Your task to perform on an android device: install app "Skype" Image 0: 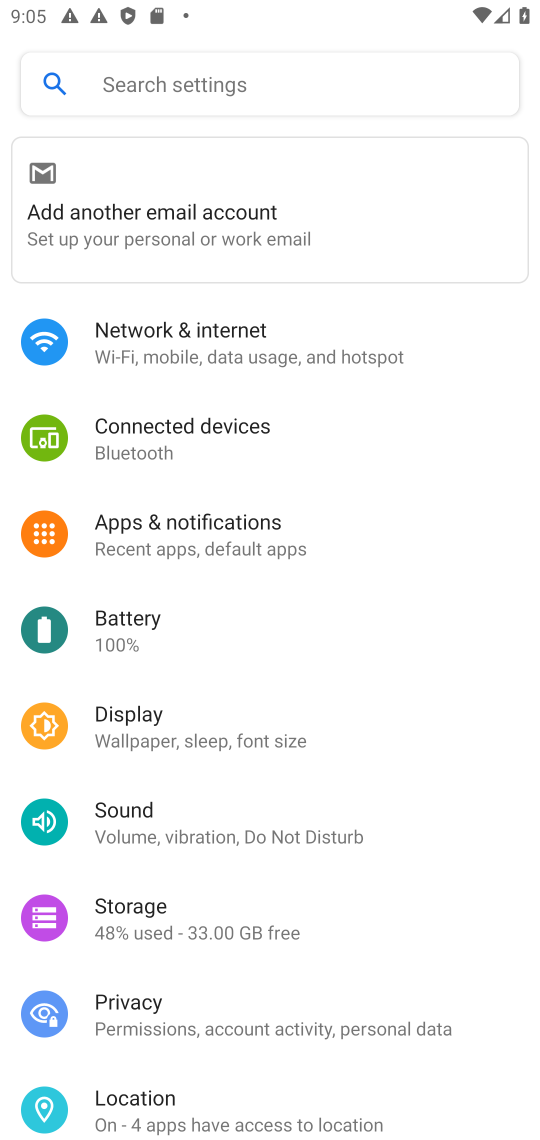
Step 0: press back button
Your task to perform on an android device: install app "Skype" Image 1: 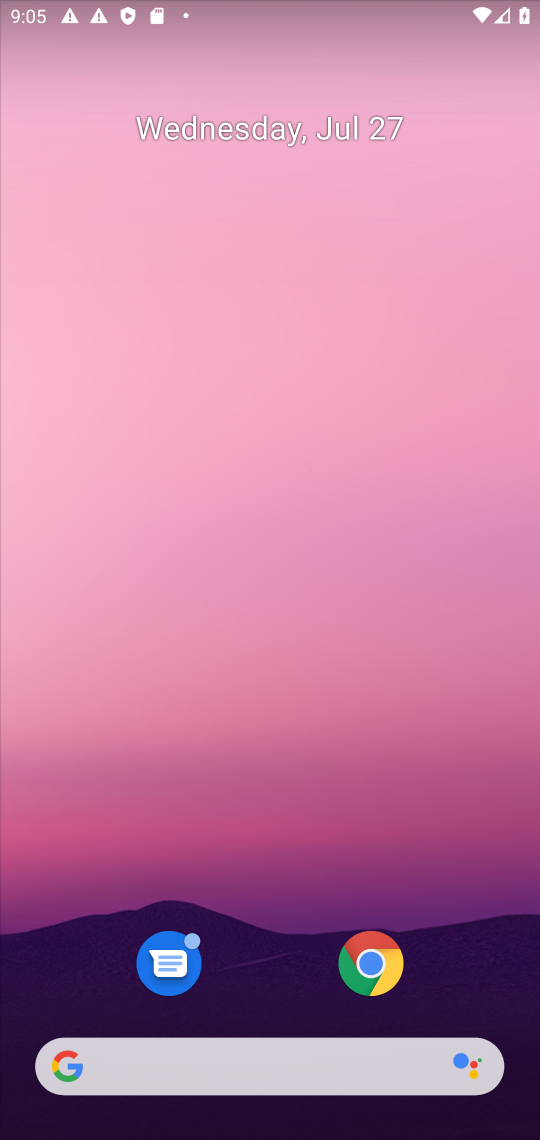
Step 1: drag from (232, 950) to (286, 129)
Your task to perform on an android device: install app "Skype" Image 2: 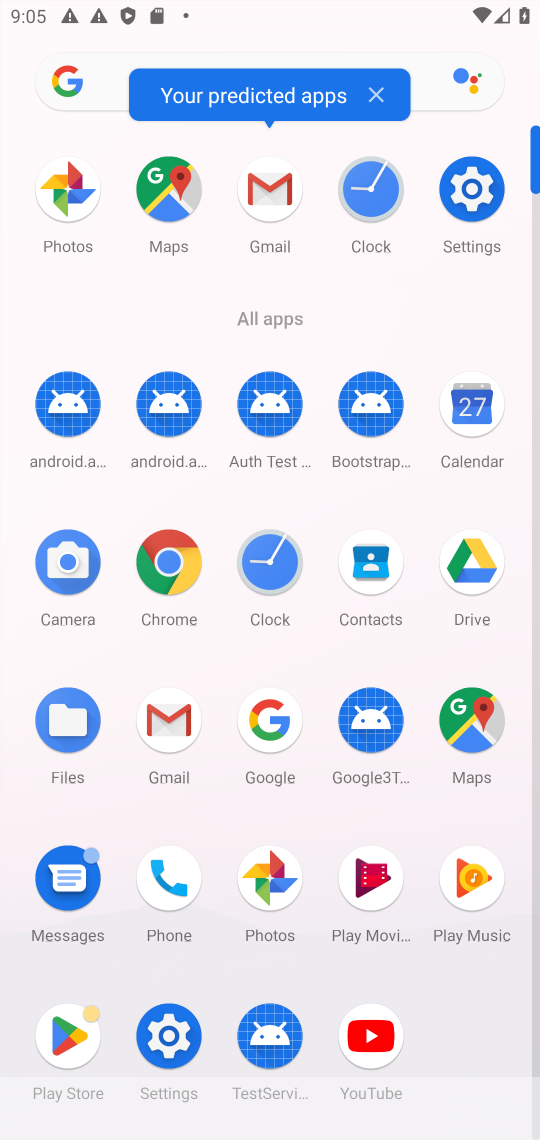
Step 2: click (79, 1030)
Your task to perform on an android device: install app "Skype" Image 3: 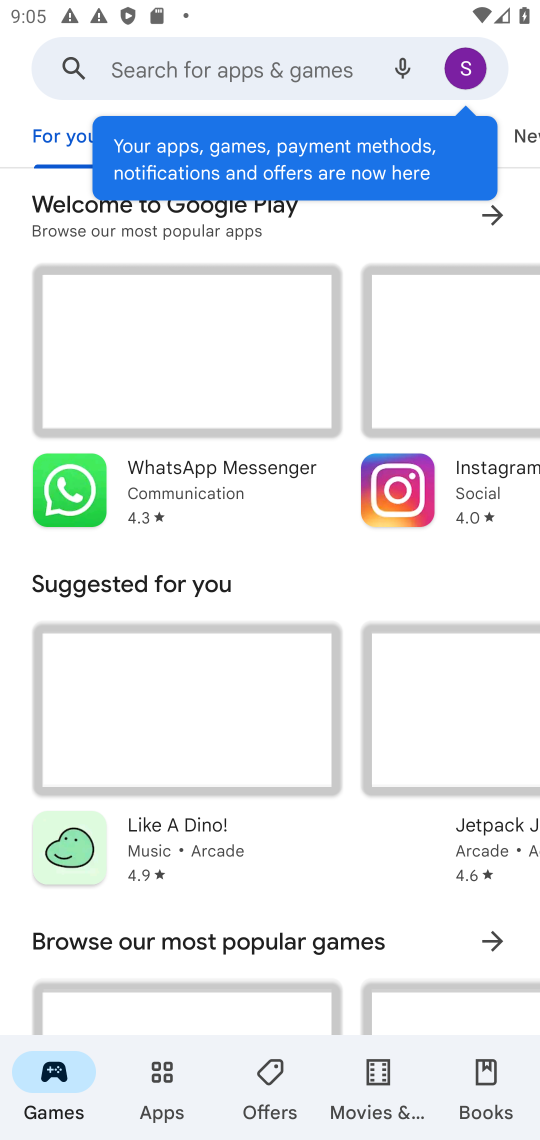
Step 3: click (311, 68)
Your task to perform on an android device: install app "Skype" Image 4: 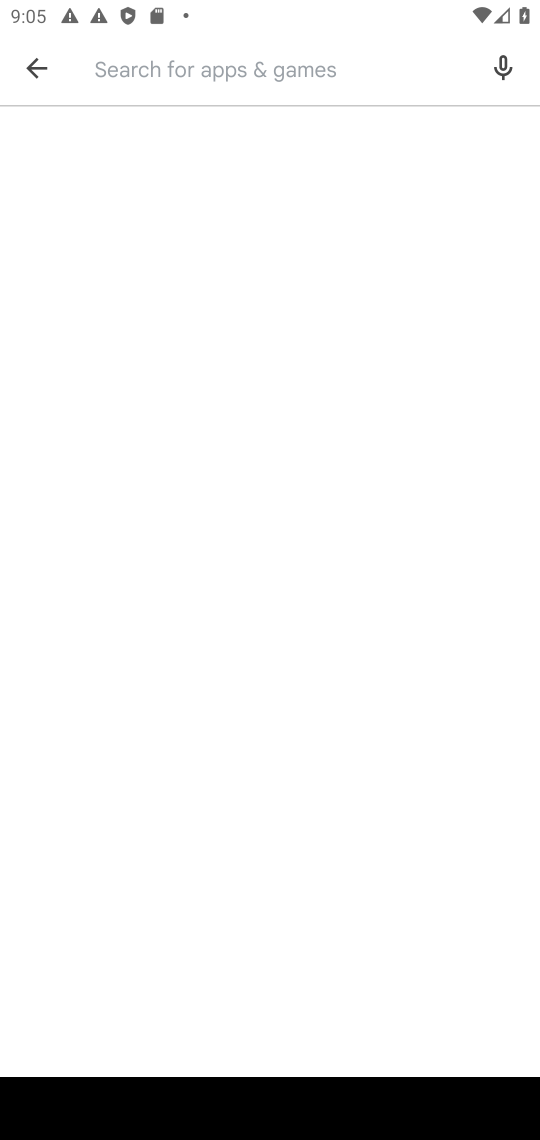
Step 4: type "skype"
Your task to perform on an android device: install app "Skype" Image 5: 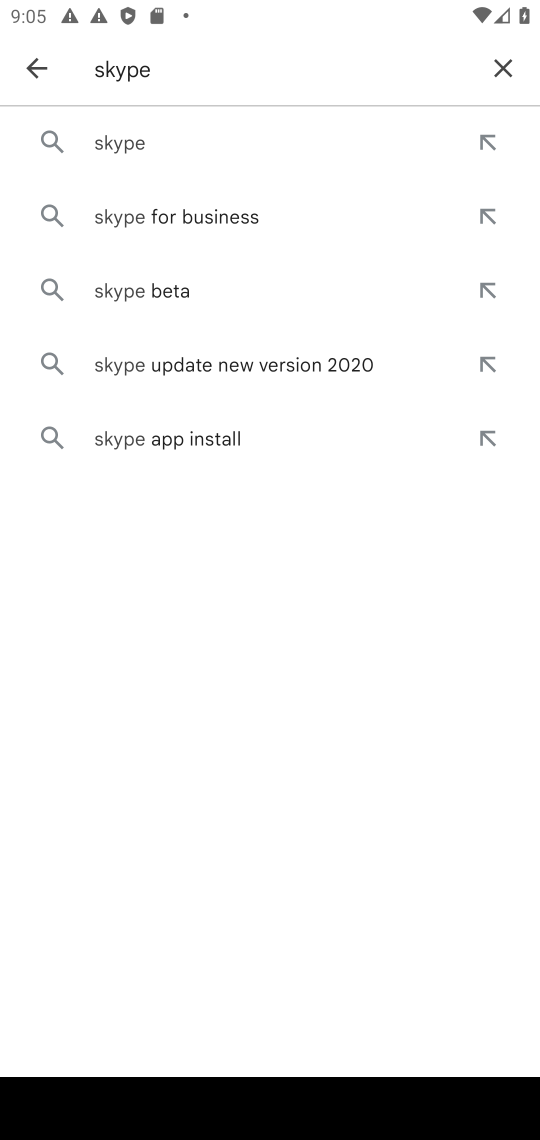
Step 5: click (199, 132)
Your task to perform on an android device: install app "Skype" Image 6: 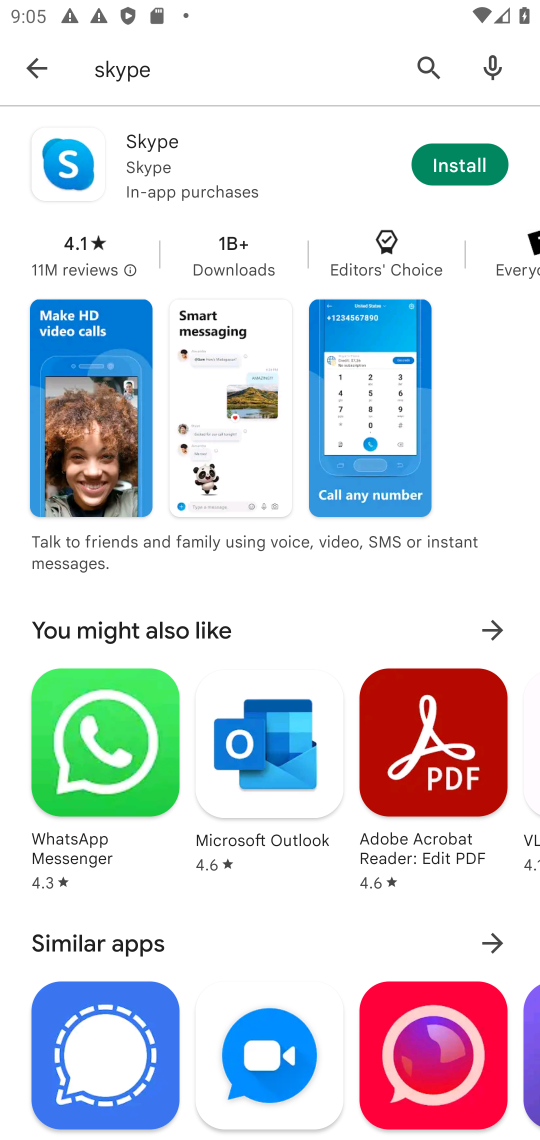
Step 6: click (414, 165)
Your task to perform on an android device: install app "Skype" Image 7: 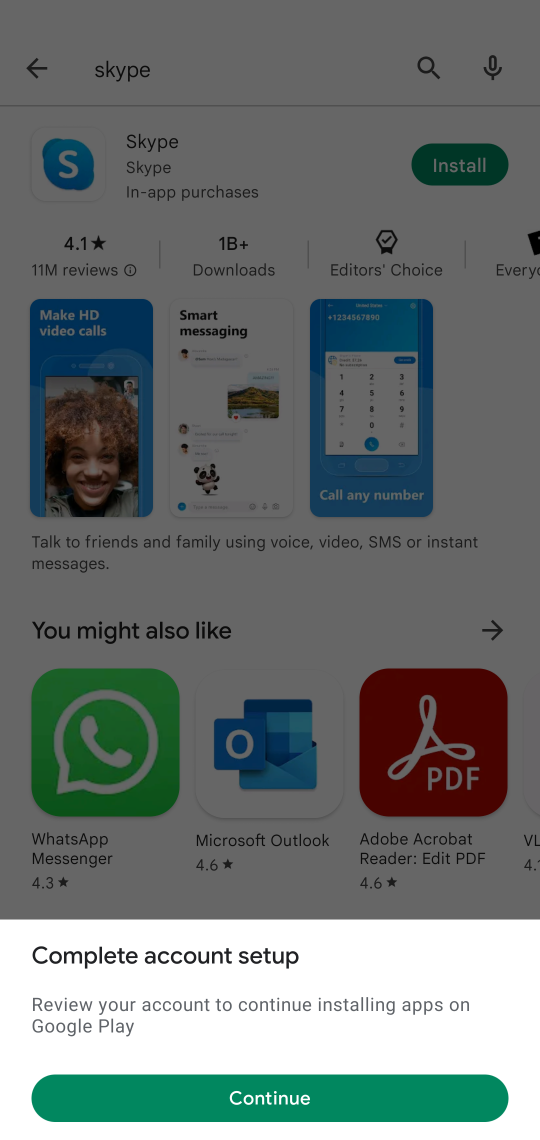
Step 7: click (251, 1083)
Your task to perform on an android device: install app "Skype" Image 8: 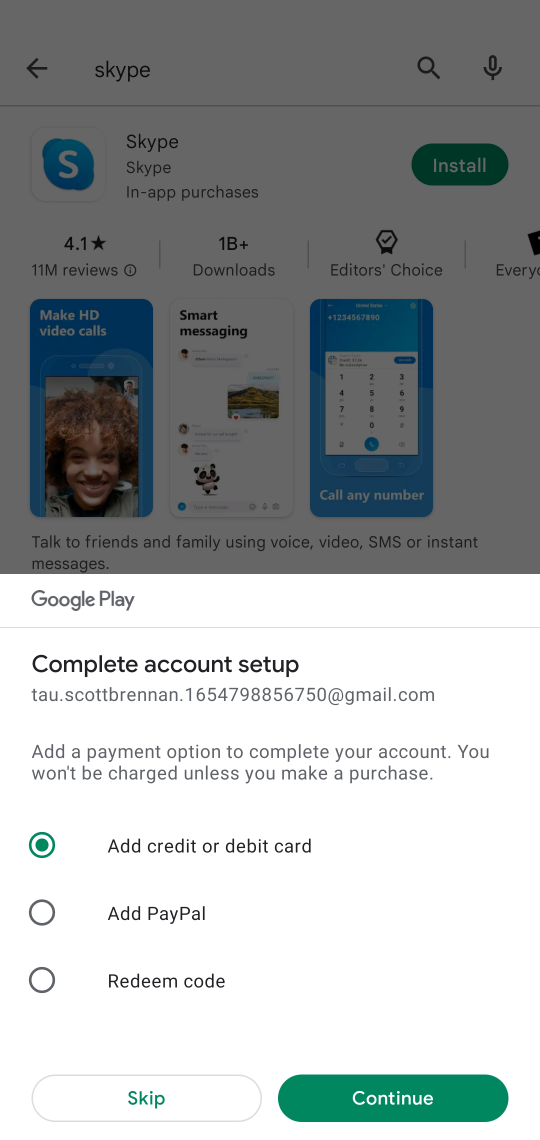
Step 8: click (193, 1096)
Your task to perform on an android device: install app "Skype" Image 9: 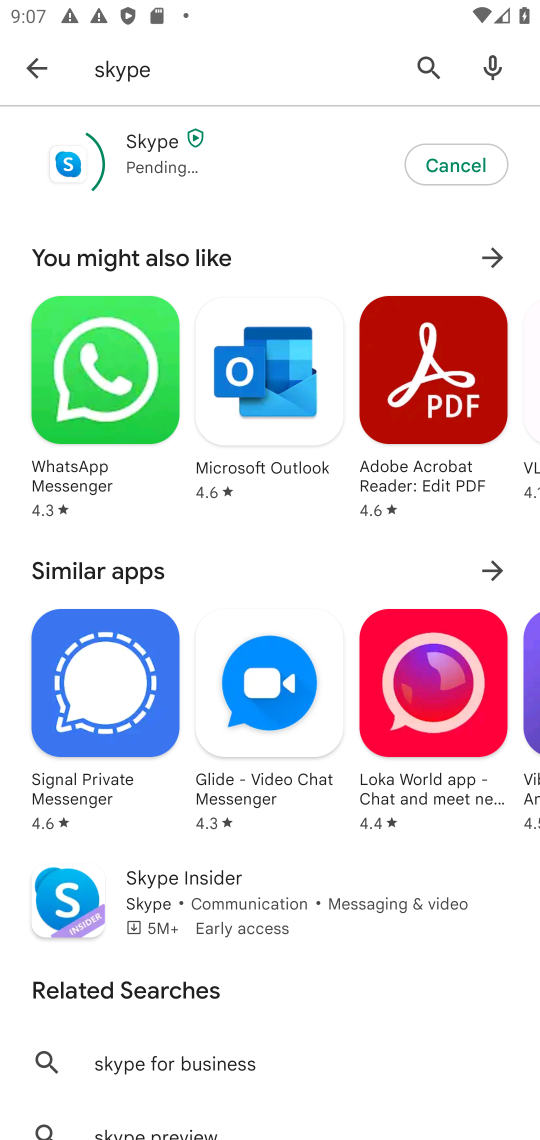
Step 9: drag from (382, 847) to (242, 1121)
Your task to perform on an android device: install app "Skype" Image 10: 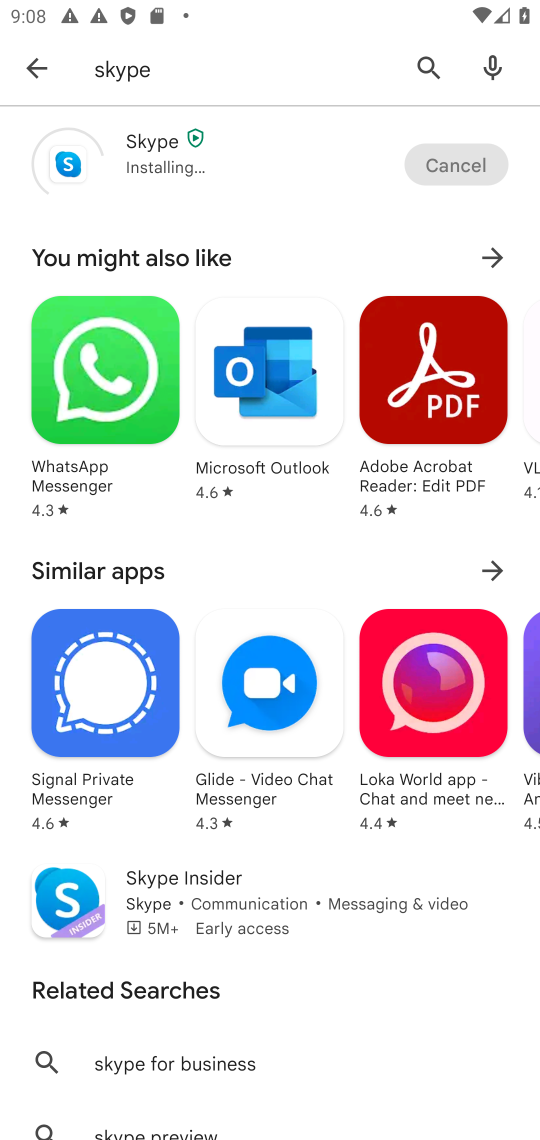
Step 10: click (482, 155)
Your task to perform on an android device: install app "Skype" Image 11: 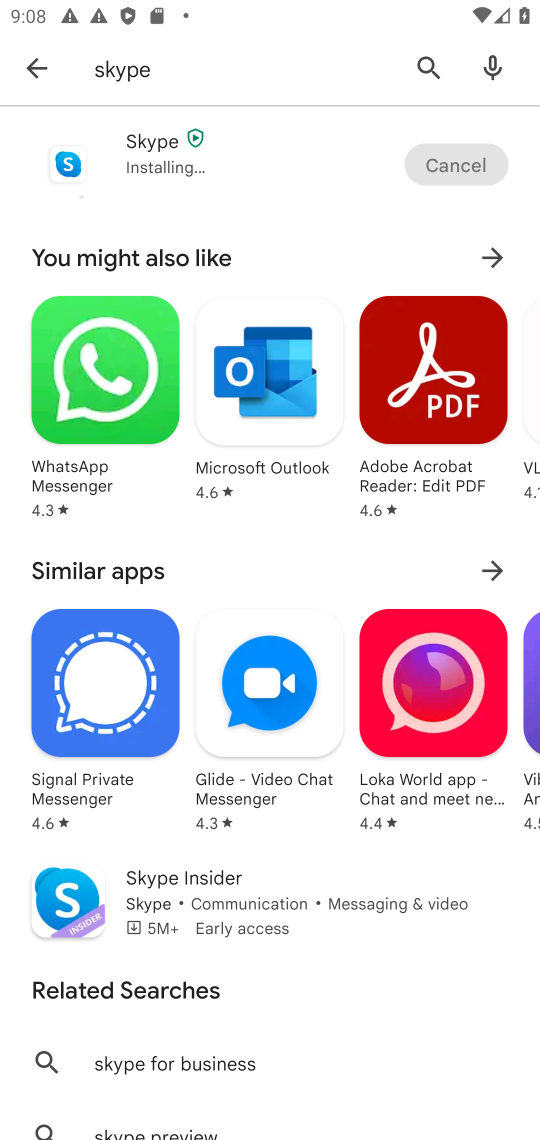
Step 11: click (36, 61)
Your task to perform on an android device: install app "Skype" Image 12: 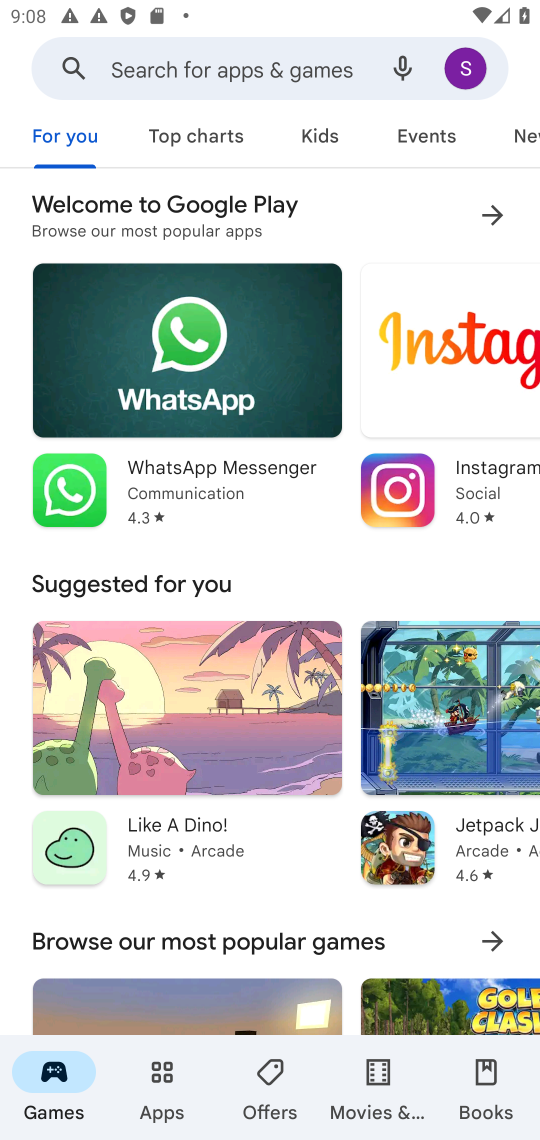
Step 12: click (475, 68)
Your task to perform on an android device: install app "Skype" Image 13: 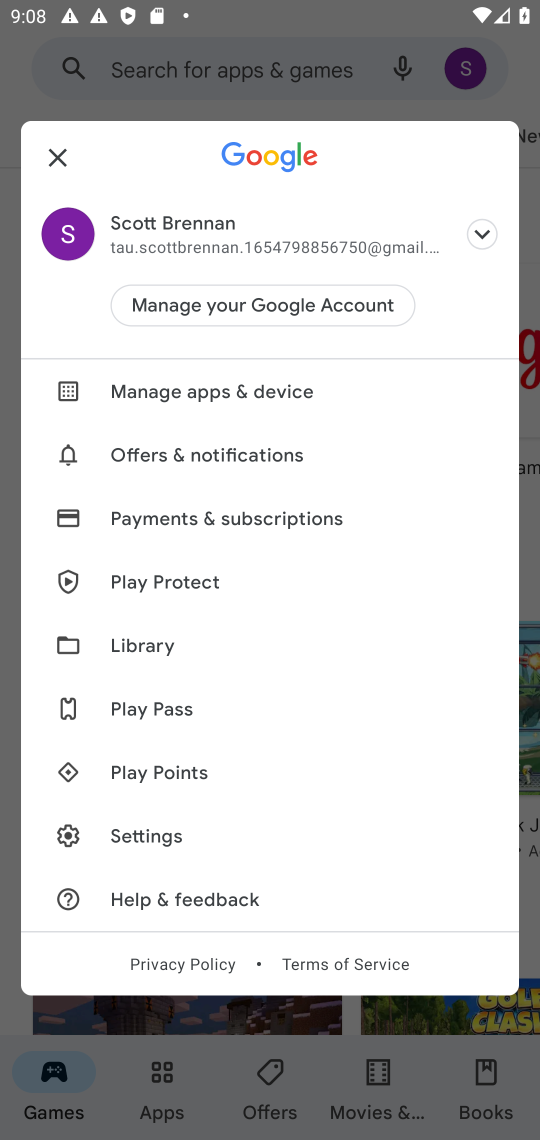
Step 13: click (188, 390)
Your task to perform on an android device: install app "Skype" Image 14: 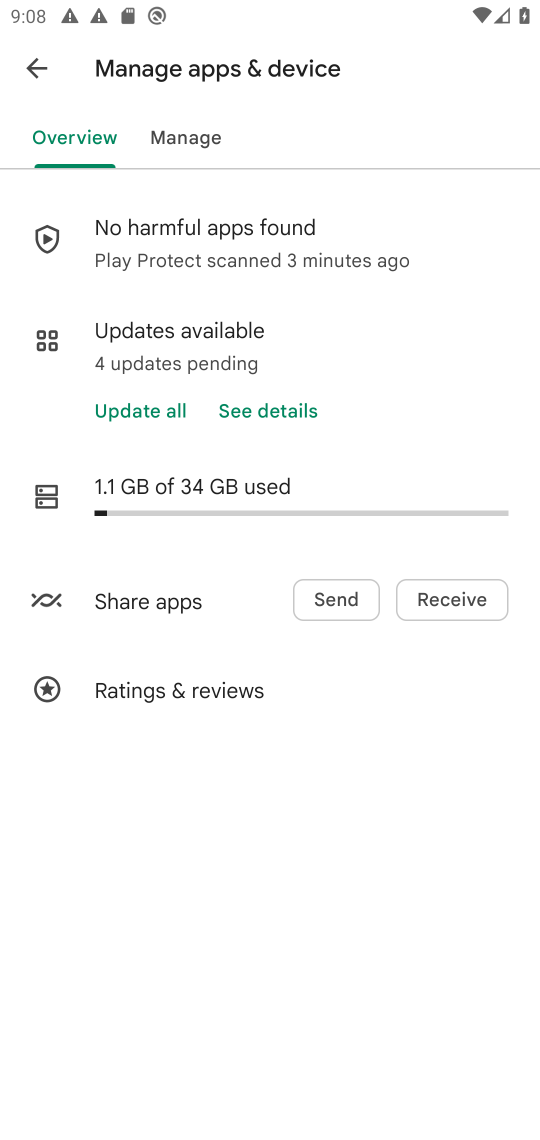
Step 14: click (172, 353)
Your task to perform on an android device: install app "Skype" Image 15: 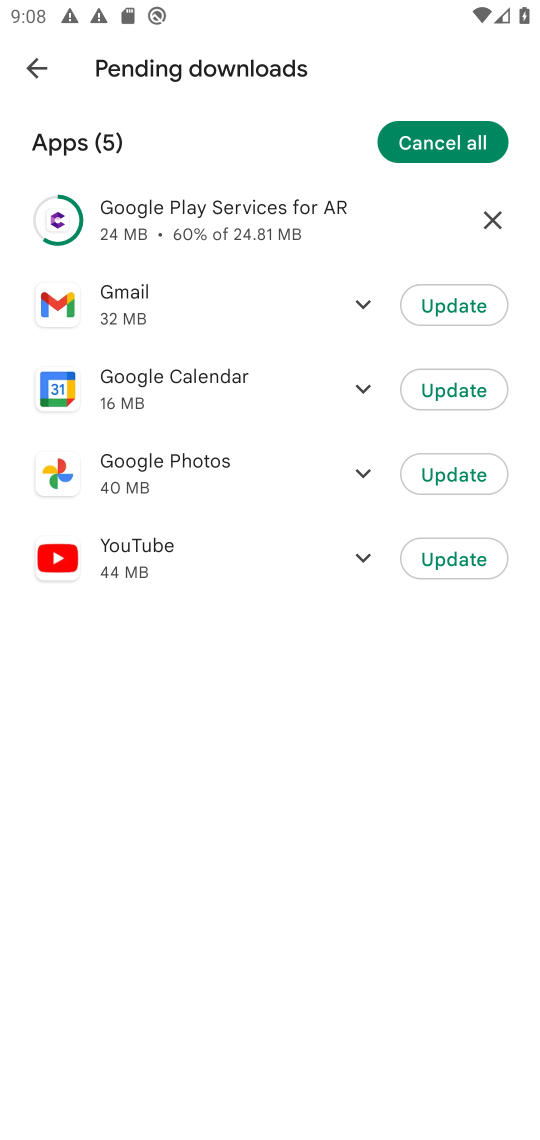
Step 15: click (457, 137)
Your task to perform on an android device: install app "Skype" Image 16: 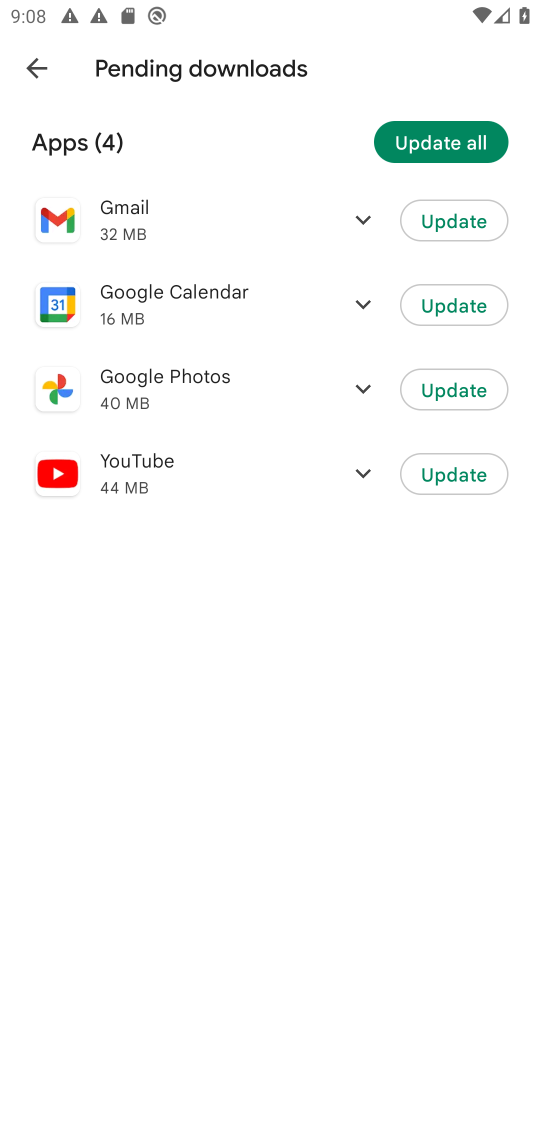
Step 16: click (30, 51)
Your task to perform on an android device: install app "Skype" Image 17: 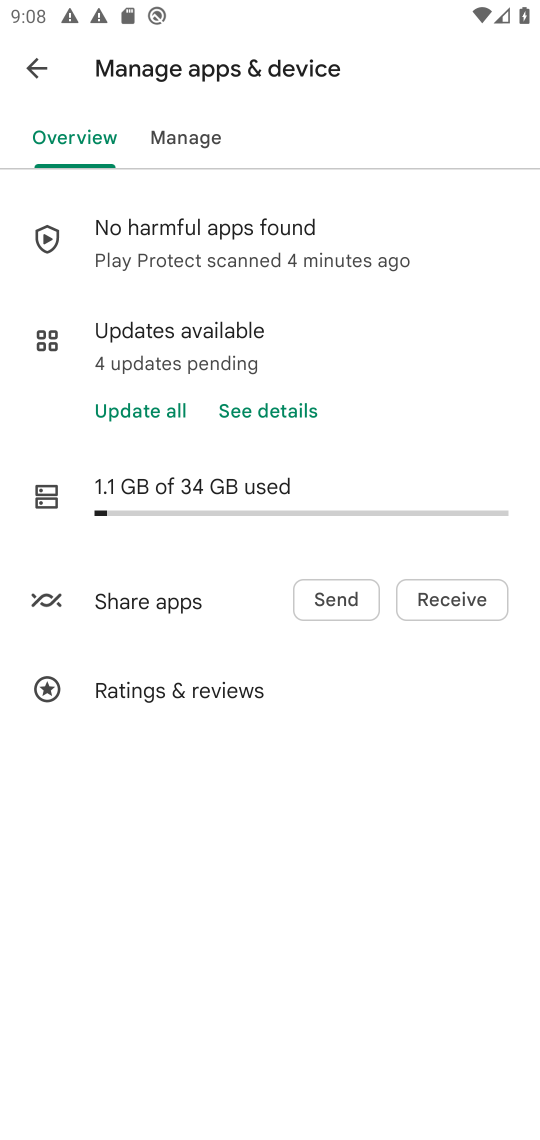
Step 17: click (42, 63)
Your task to perform on an android device: install app "Skype" Image 18: 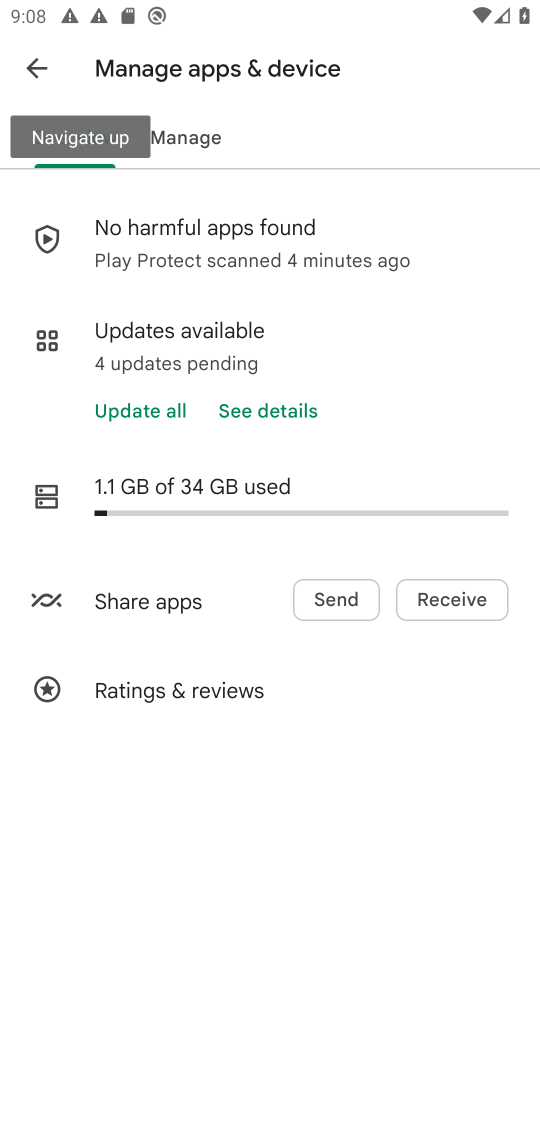
Step 18: click (45, 63)
Your task to perform on an android device: install app "Skype" Image 19: 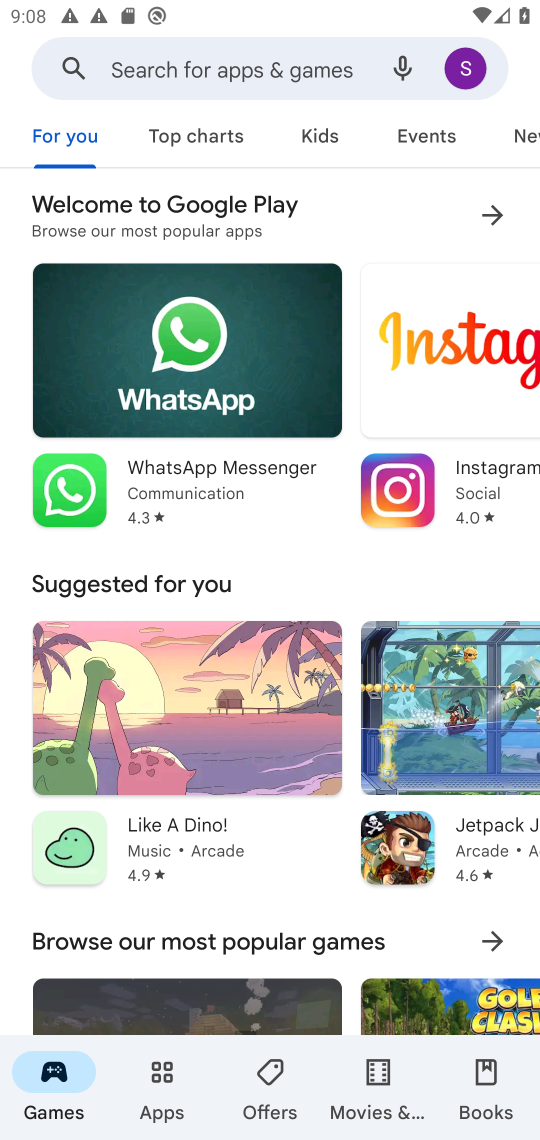
Step 19: click (230, 87)
Your task to perform on an android device: install app "Skype" Image 20: 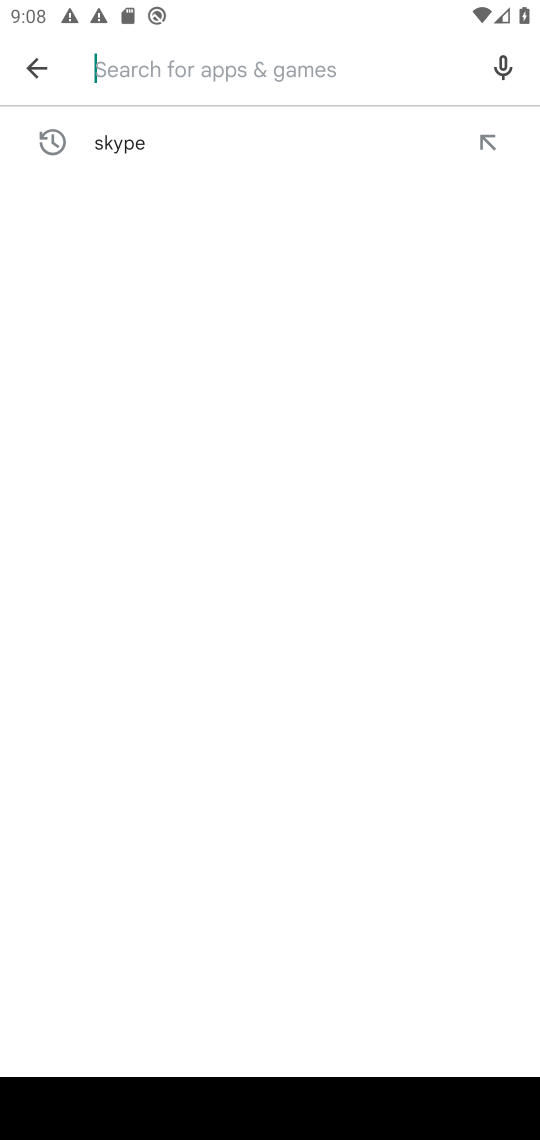
Step 20: click (114, 138)
Your task to perform on an android device: install app "Skype" Image 21: 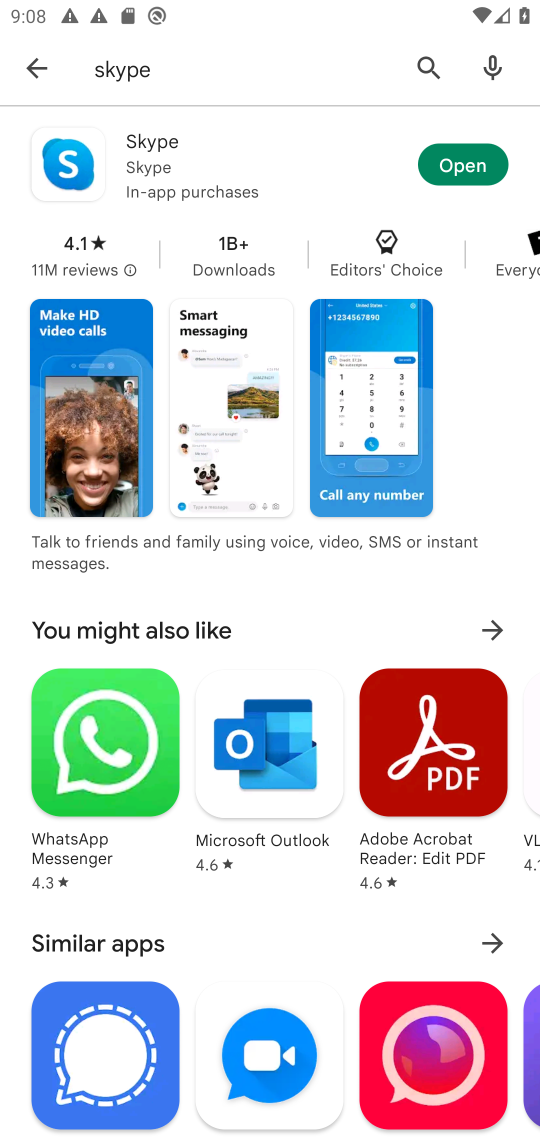
Step 21: task complete